Your task to perform on an android device: Open Android settings Image 0: 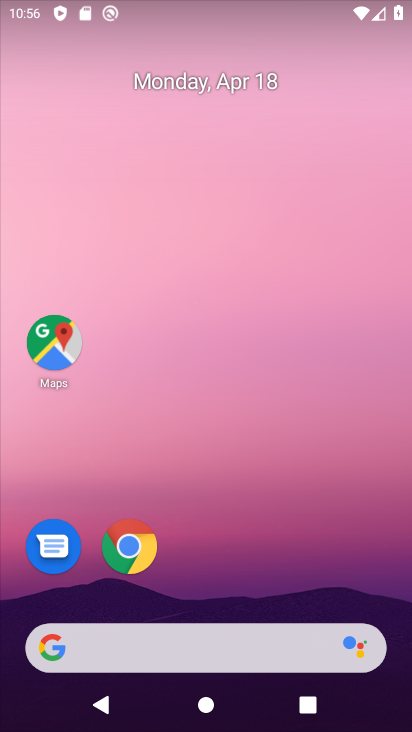
Step 0: drag from (385, 587) to (395, 110)
Your task to perform on an android device: Open Android settings Image 1: 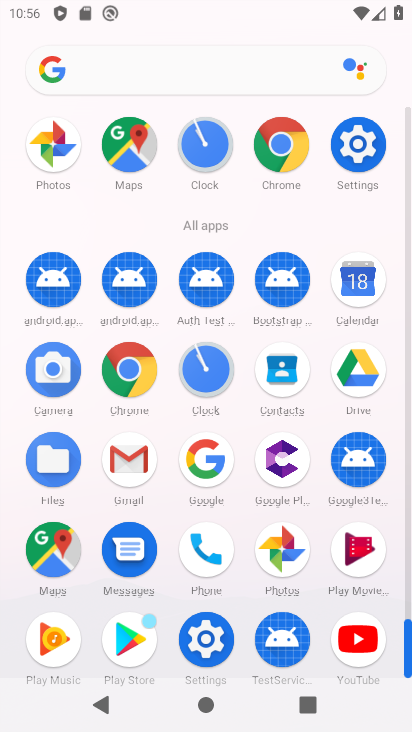
Step 1: click (356, 156)
Your task to perform on an android device: Open Android settings Image 2: 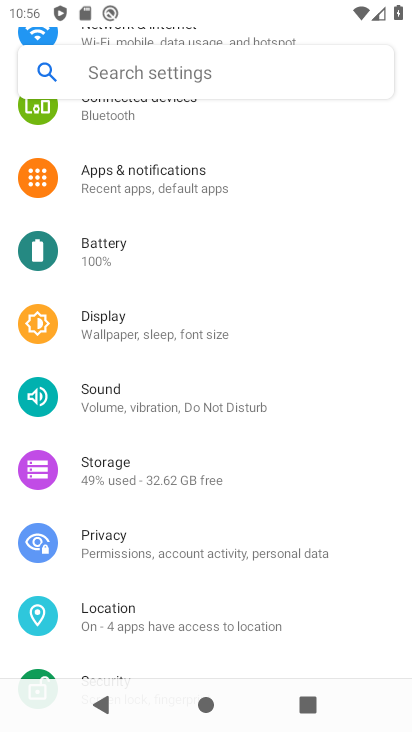
Step 2: drag from (365, 259) to (361, 412)
Your task to perform on an android device: Open Android settings Image 3: 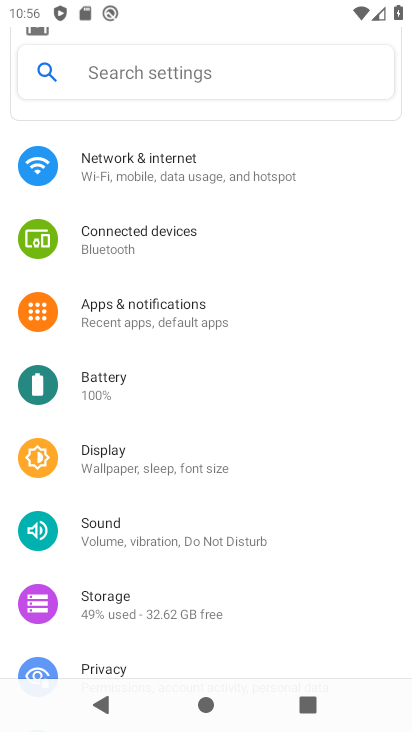
Step 3: drag from (353, 246) to (353, 355)
Your task to perform on an android device: Open Android settings Image 4: 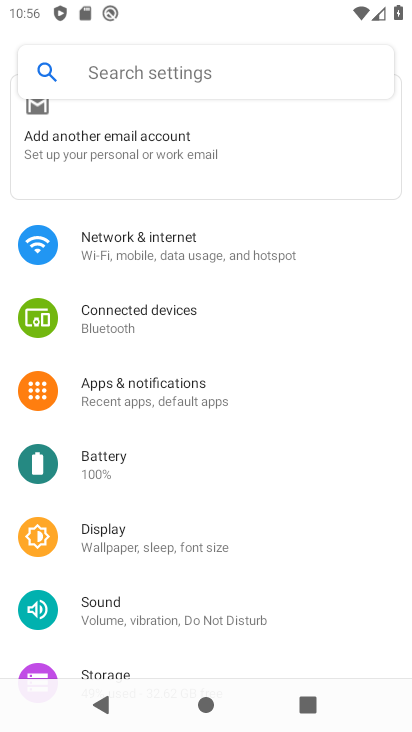
Step 4: drag from (364, 487) to (374, 323)
Your task to perform on an android device: Open Android settings Image 5: 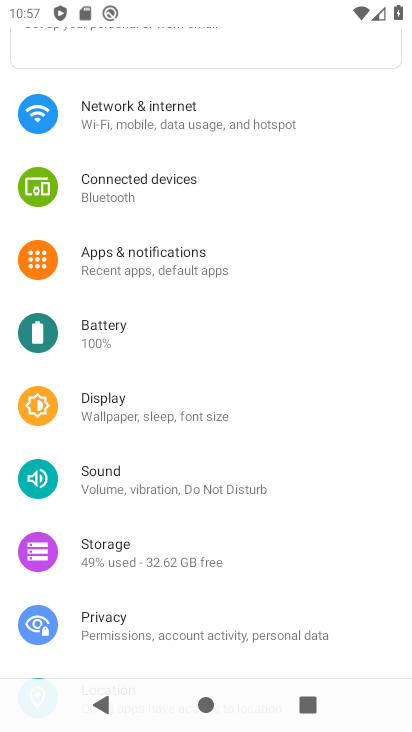
Step 5: drag from (373, 496) to (374, 358)
Your task to perform on an android device: Open Android settings Image 6: 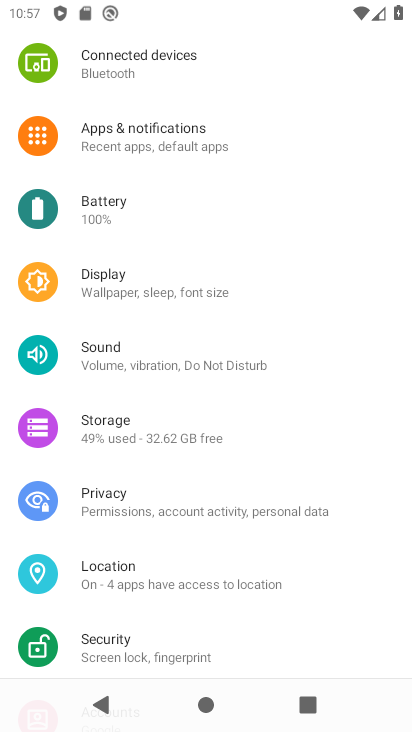
Step 6: drag from (360, 546) to (363, 378)
Your task to perform on an android device: Open Android settings Image 7: 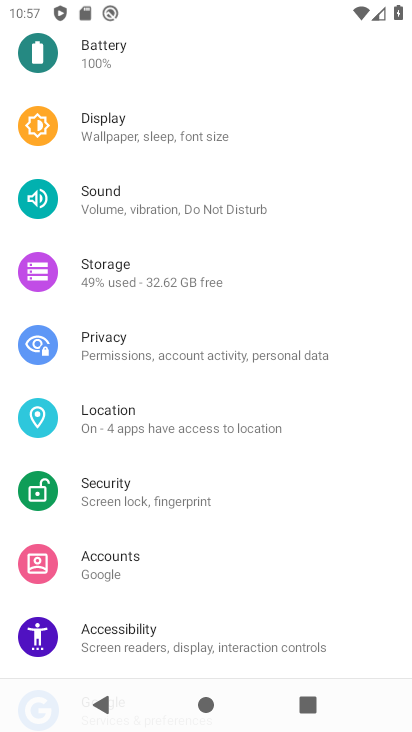
Step 7: drag from (384, 535) to (393, 379)
Your task to perform on an android device: Open Android settings Image 8: 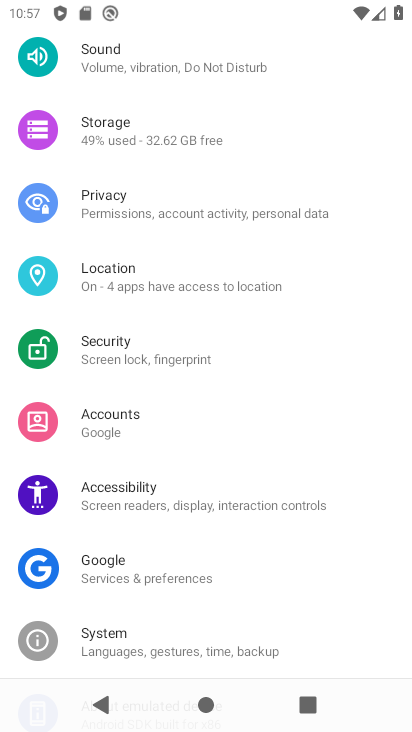
Step 8: drag from (362, 602) to (361, 386)
Your task to perform on an android device: Open Android settings Image 9: 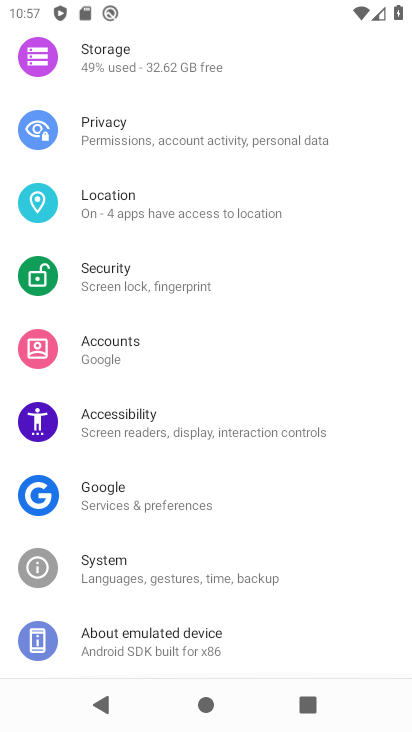
Step 9: click (259, 573)
Your task to perform on an android device: Open Android settings Image 10: 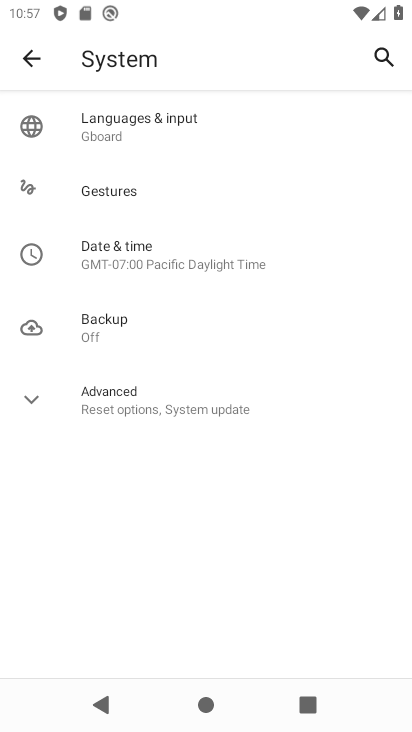
Step 10: click (176, 404)
Your task to perform on an android device: Open Android settings Image 11: 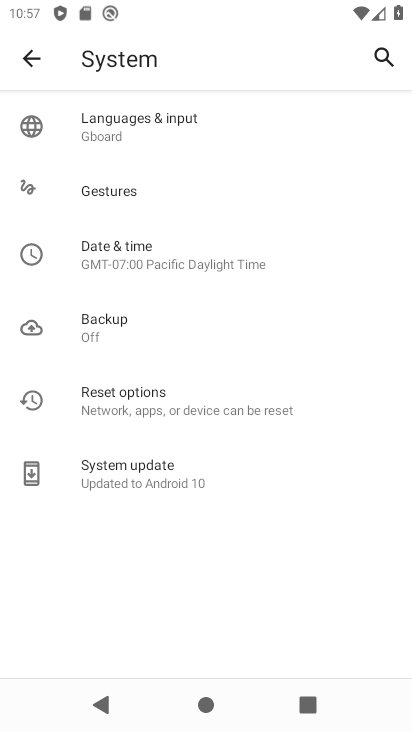
Step 11: click (149, 477)
Your task to perform on an android device: Open Android settings Image 12: 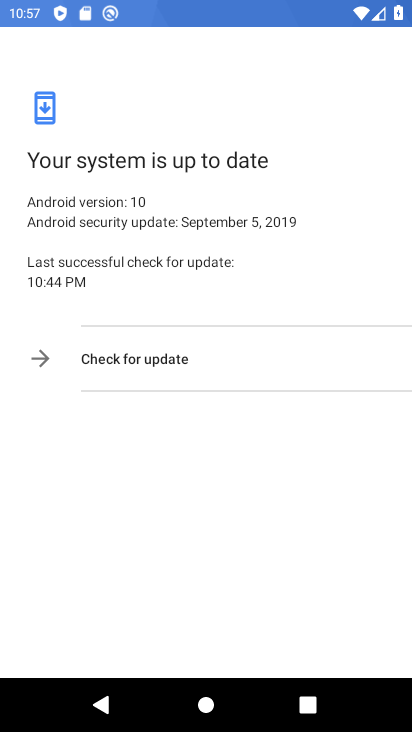
Step 12: task complete